Your task to perform on an android device: turn on javascript in the chrome app Image 0: 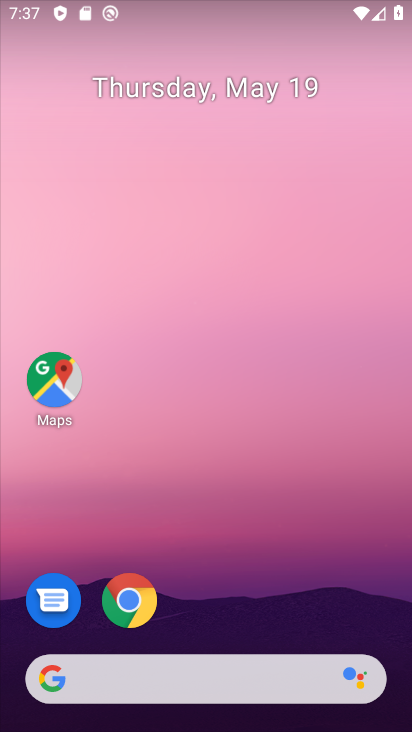
Step 0: drag from (368, 621) to (346, 160)
Your task to perform on an android device: turn on javascript in the chrome app Image 1: 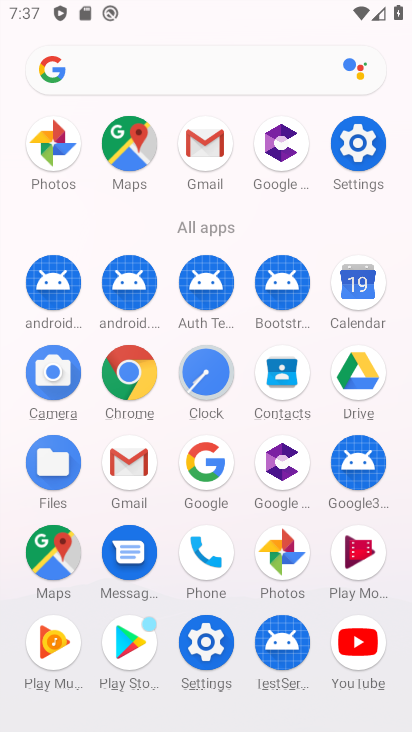
Step 1: click (143, 375)
Your task to perform on an android device: turn on javascript in the chrome app Image 2: 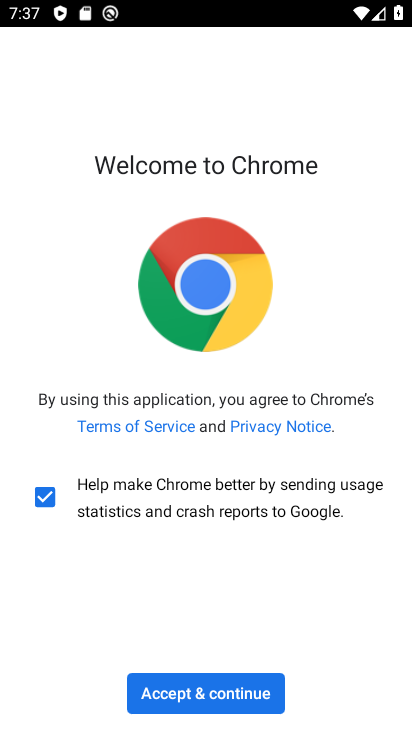
Step 2: click (259, 703)
Your task to perform on an android device: turn on javascript in the chrome app Image 3: 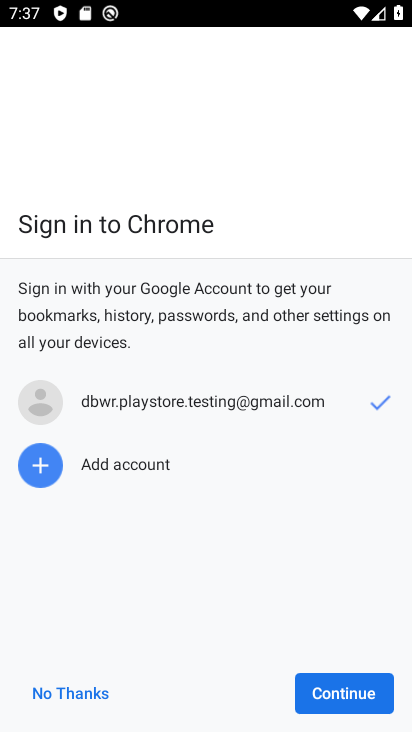
Step 3: click (361, 706)
Your task to perform on an android device: turn on javascript in the chrome app Image 4: 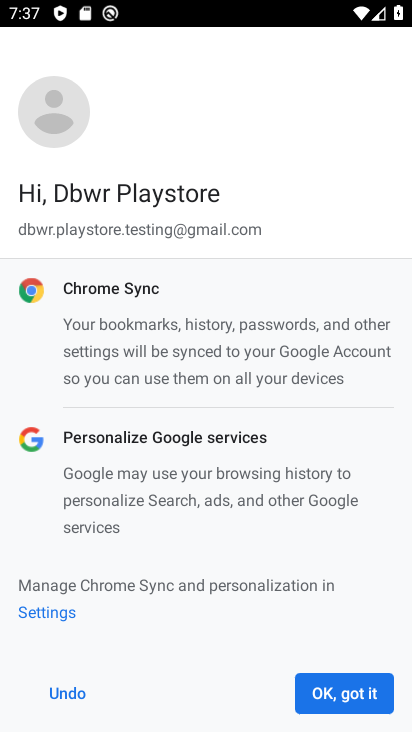
Step 4: click (361, 688)
Your task to perform on an android device: turn on javascript in the chrome app Image 5: 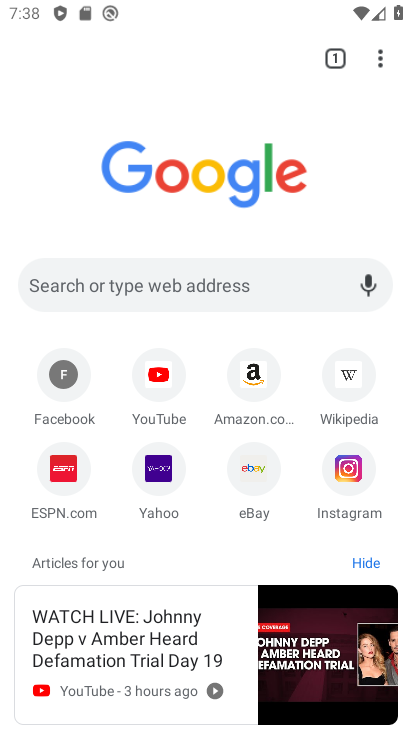
Step 5: click (382, 66)
Your task to perform on an android device: turn on javascript in the chrome app Image 6: 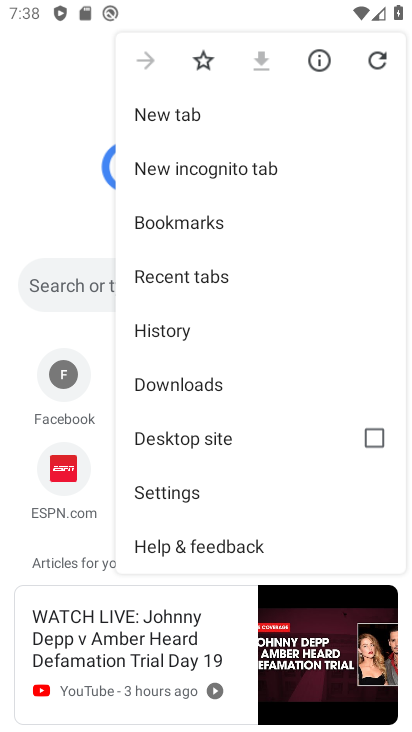
Step 6: drag from (285, 393) to (301, 281)
Your task to perform on an android device: turn on javascript in the chrome app Image 7: 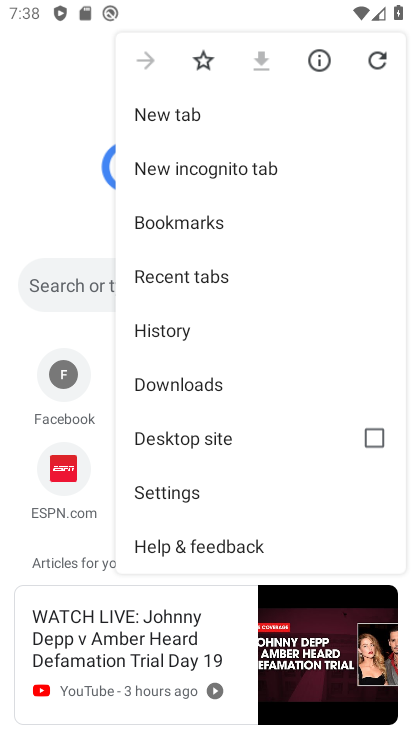
Step 7: click (194, 488)
Your task to perform on an android device: turn on javascript in the chrome app Image 8: 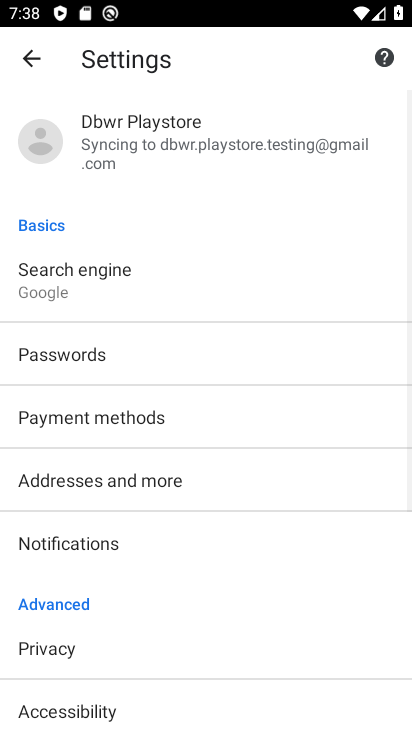
Step 8: drag from (241, 600) to (262, 497)
Your task to perform on an android device: turn on javascript in the chrome app Image 9: 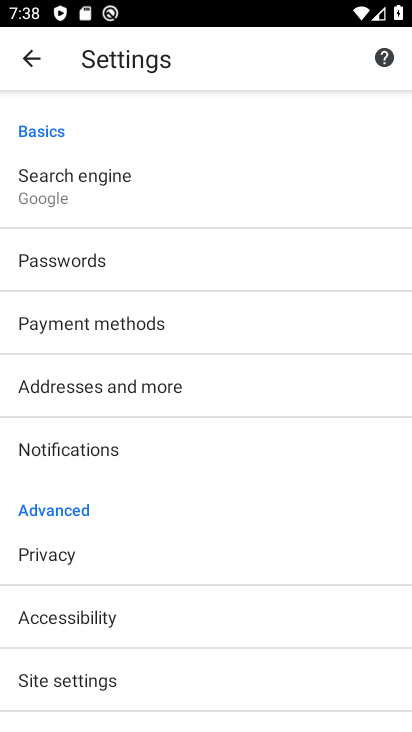
Step 9: drag from (260, 639) to (279, 542)
Your task to perform on an android device: turn on javascript in the chrome app Image 10: 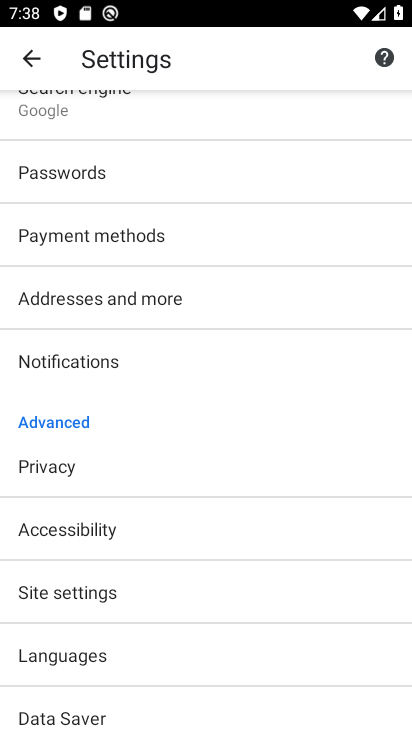
Step 10: drag from (286, 632) to (304, 522)
Your task to perform on an android device: turn on javascript in the chrome app Image 11: 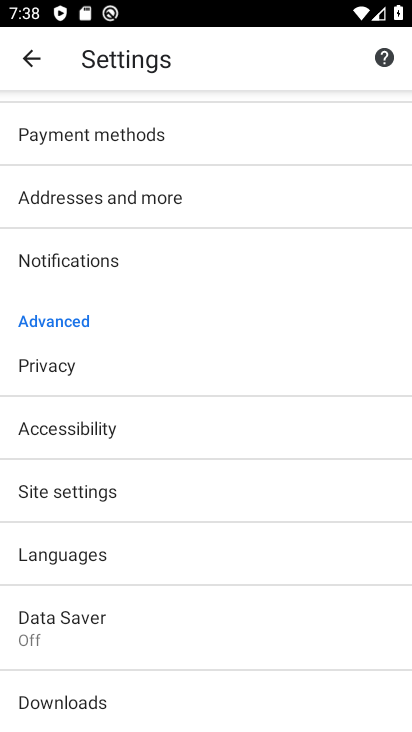
Step 11: drag from (302, 652) to (317, 574)
Your task to perform on an android device: turn on javascript in the chrome app Image 12: 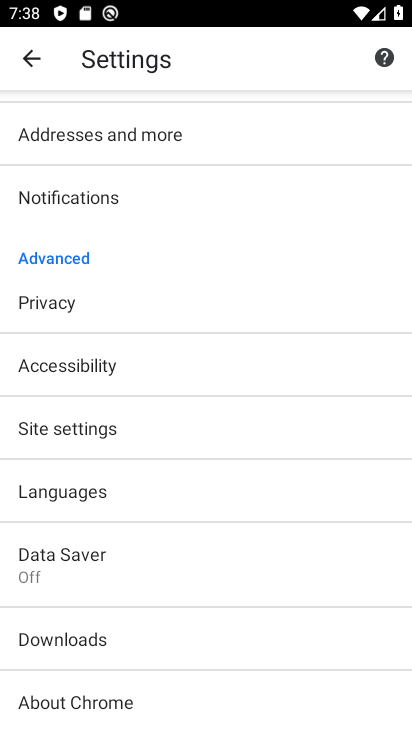
Step 12: drag from (302, 675) to (304, 564)
Your task to perform on an android device: turn on javascript in the chrome app Image 13: 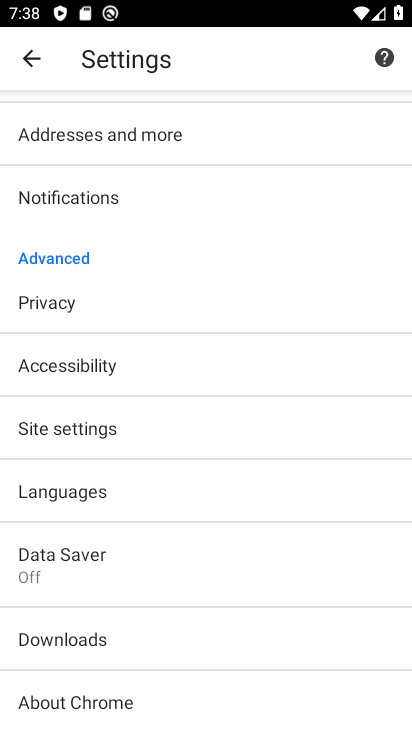
Step 13: click (280, 431)
Your task to perform on an android device: turn on javascript in the chrome app Image 14: 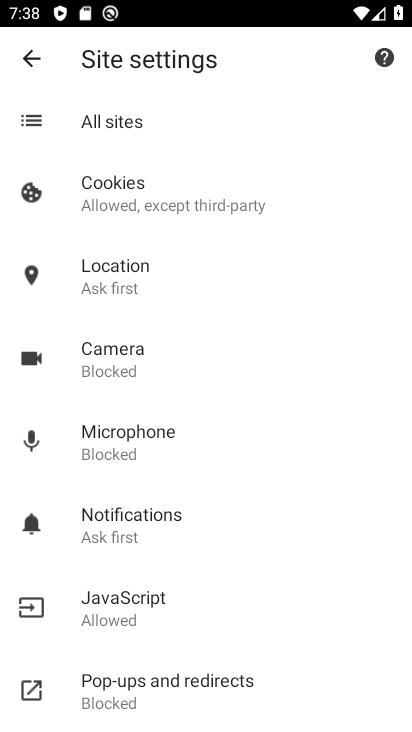
Step 14: drag from (314, 581) to (312, 502)
Your task to perform on an android device: turn on javascript in the chrome app Image 15: 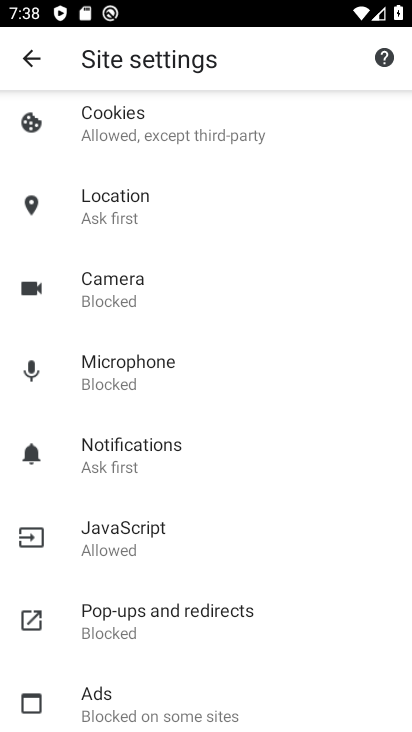
Step 15: drag from (338, 643) to (342, 544)
Your task to perform on an android device: turn on javascript in the chrome app Image 16: 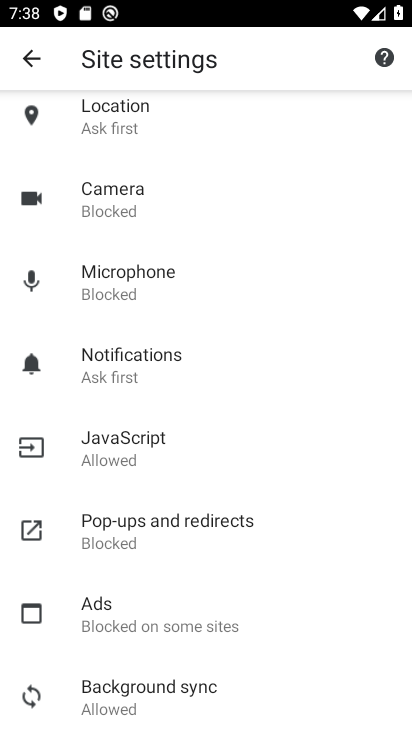
Step 16: drag from (343, 630) to (346, 561)
Your task to perform on an android device: turn on javascript in the chrome app Image 17: 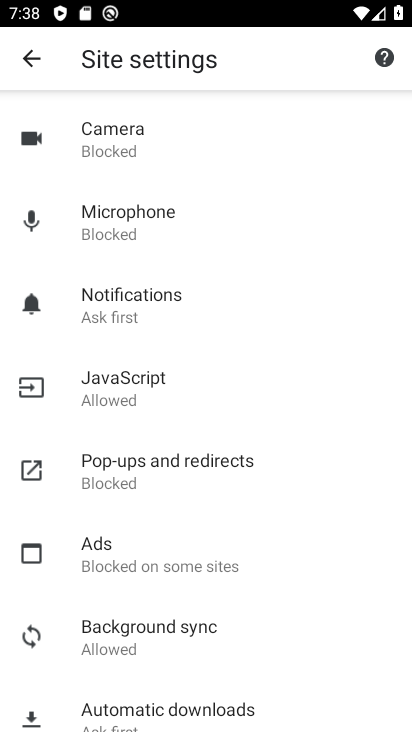
Step 17: click (162, 389)
Your task to perform on an android device: turn on javascript in the chrome app Image 18: 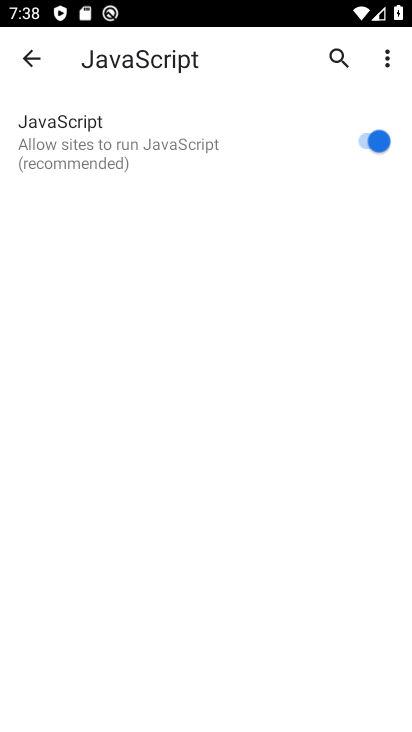
Step 18: task complete